Your task to perform on an android device: Search for the best rated tool bag on Lowe's. Image 0: 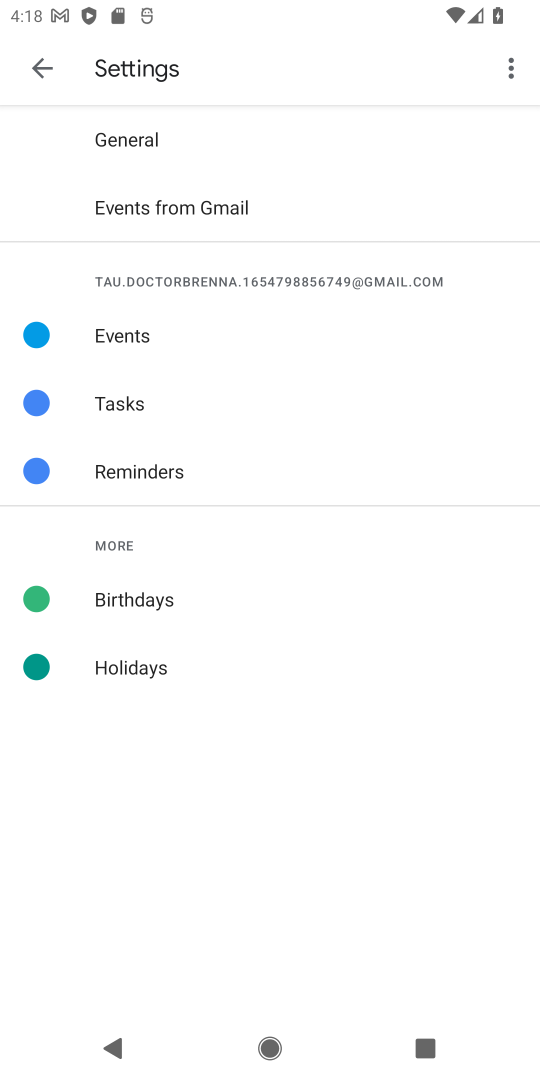
Step 0: click (48, 69)
Your task to perform on an android device: Search for the best rated tool bag on Lowe's. Image 1: 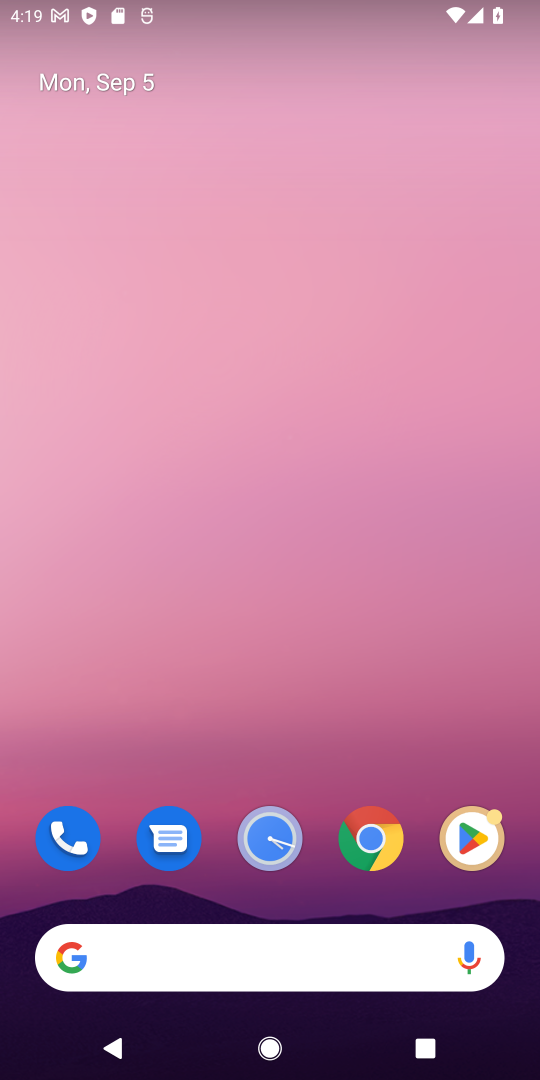
Step 1: drag from (322, 887) to (287, 470)
Your task to perform on an android device: Search for the best rated tool bag on Lowe's. Image 2: 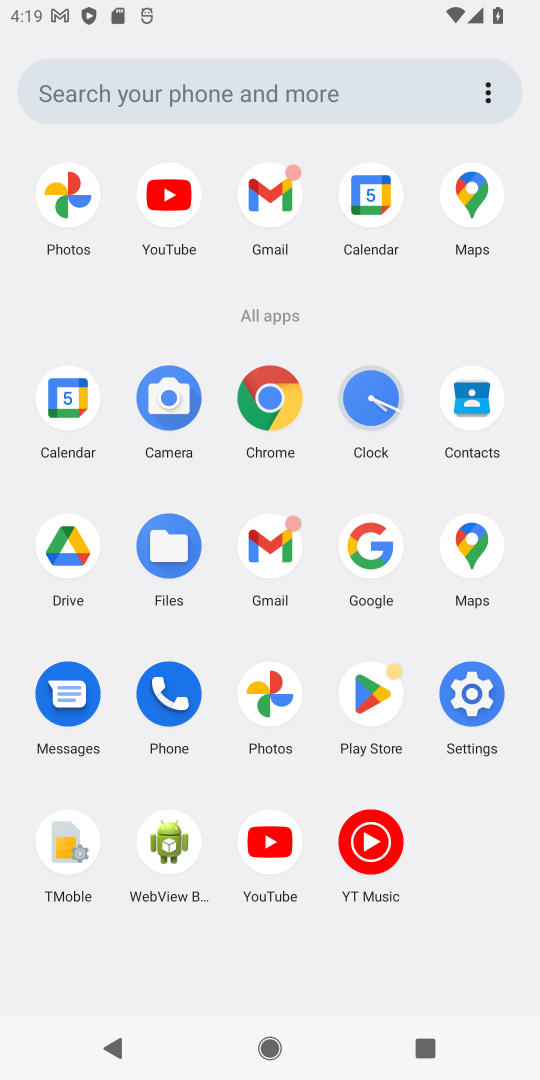
Step 2: click (269, 398)
Your task to perform on an android device: Search for the best rated tool bag on Lowe's. Image 3: 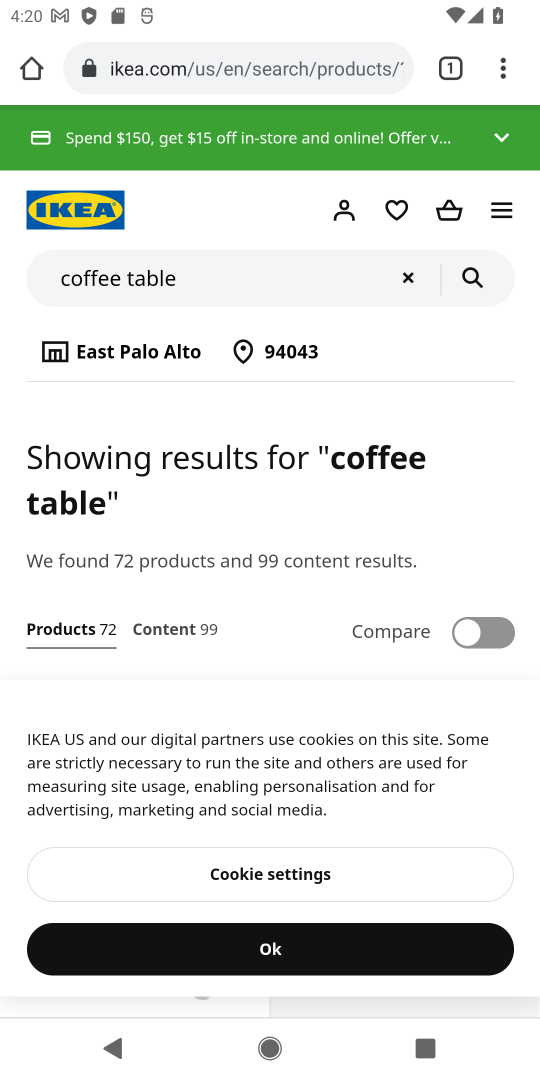
Step 3: task complete